Your task to perform on an android device: Open notification settings Image 0: 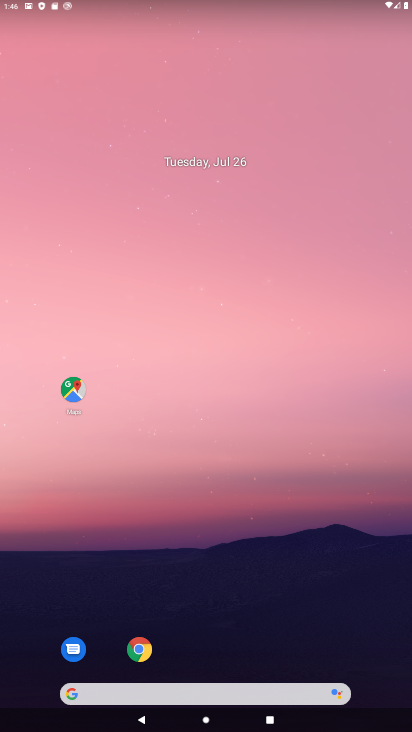
Step 0: drag from (225, 690) to (241, 106)
Your task to perform on an android device: Open notification settings Image 1: 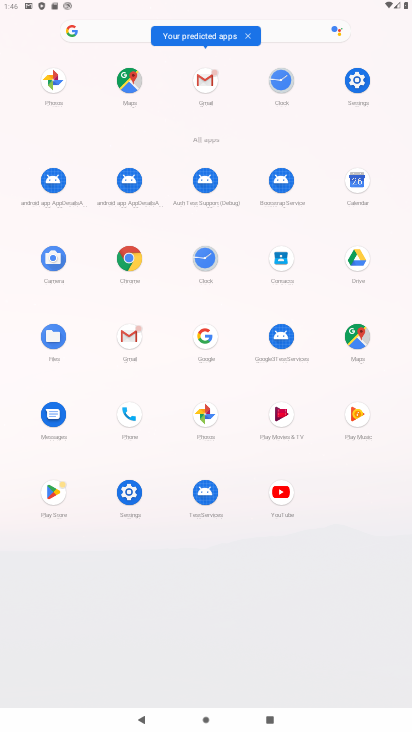
Step 1: click (355, 79)
Your task to perform on an android device: Open notification settings Image 2: 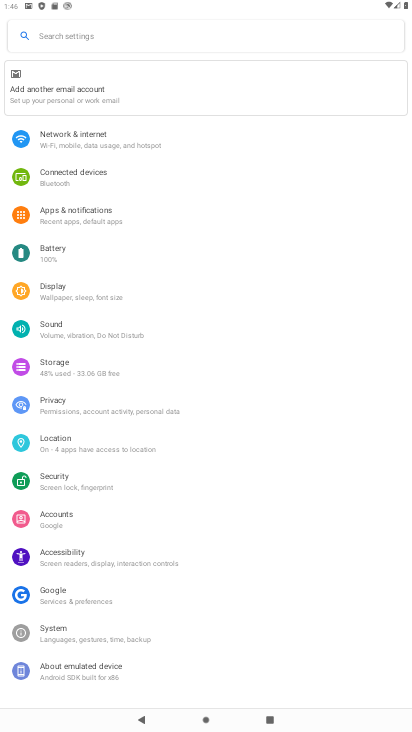
Step 2: click (78, 213)
Your task to perform on an android device: Open notification settings Image 3: 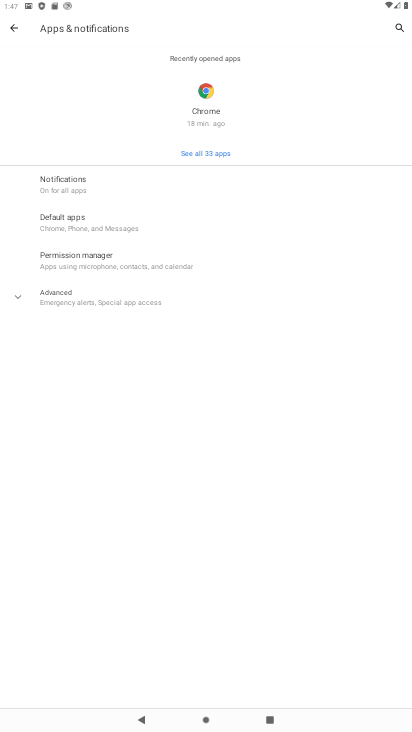
Step 3: click (61, 182)
Your task to perform on an android device: Open notification settings Image 4: 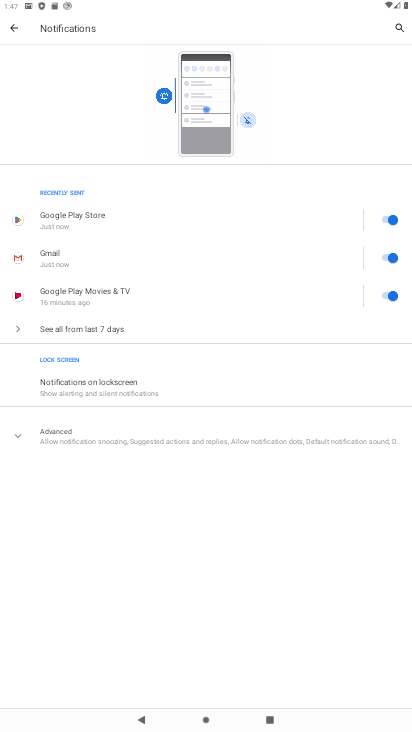
Step 4: task complete